Your task to perform on an android device: open the mobile data screen to see how much data has been used Image 0: 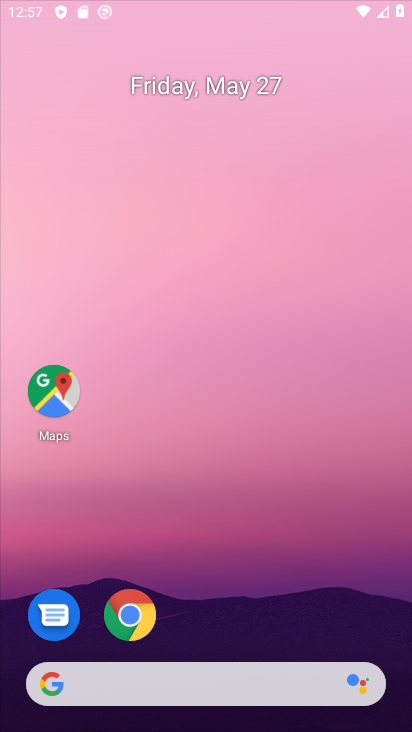
Step 0: press home button
Your task to perform on an android device: open the mobile data screen to see how much data has been used Image 1: 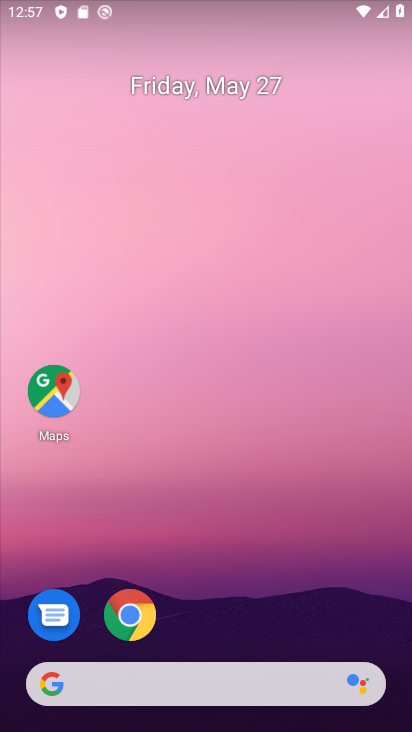
Step 1: drag from (216, 617) to (216, 25)
Your task to perform on an android device: open the mobile data screen to see how much data has been used Image 2: 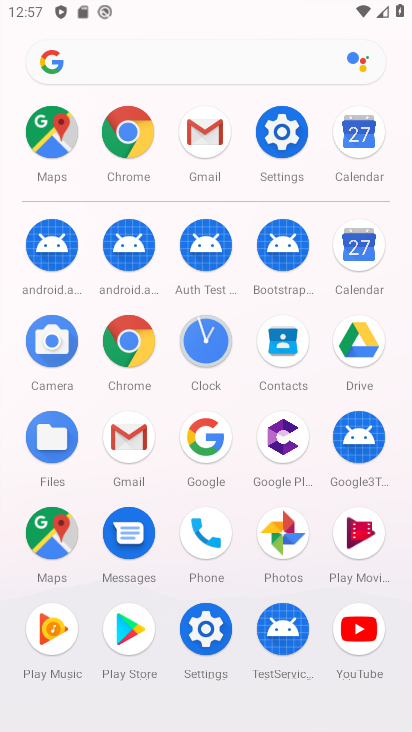
Step 2: click (291, 151)
Your task to perform on an android device: open the mobile data screen to see how much data has been used Image 3: 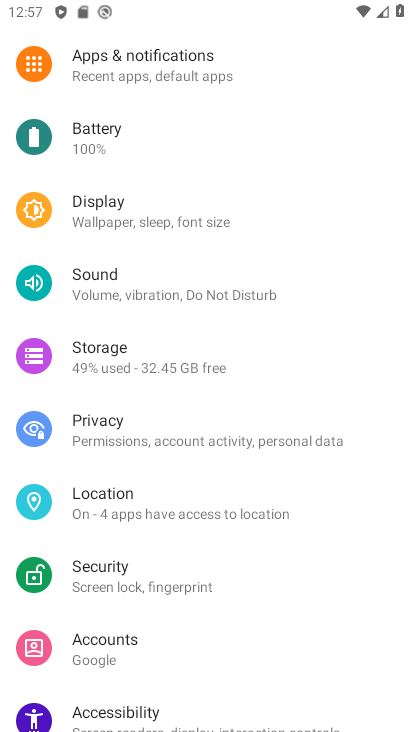
Step 3: drag from (226, 109) to (176, 526)
Your task to perform on an android device: open the mobile data screen to see how much data has been used Image 4: 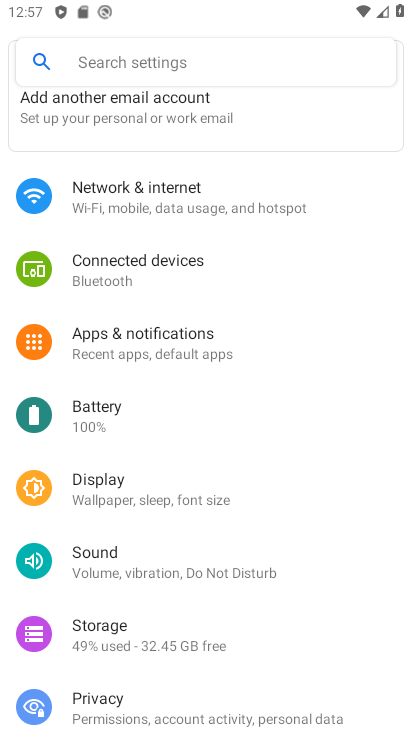
Step 4: click (153, 197)
Your task to perform on an android device: open the mobile data screen to see how much data has been used Image 5: 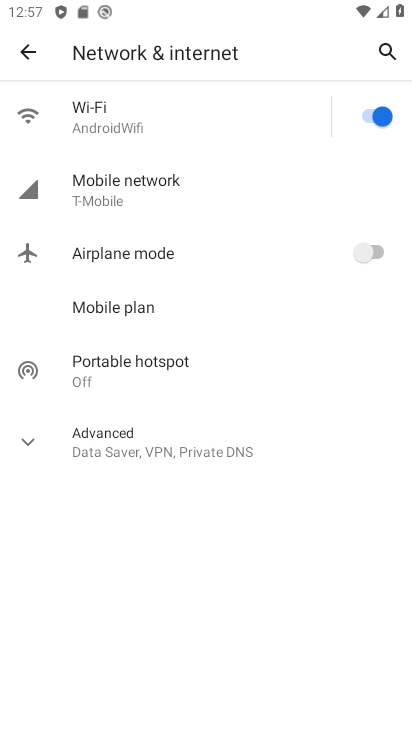
Step 5: click (142, 189)
Your task to perform on an android device: open the mobile data screen to see how much data has been used Image 6: 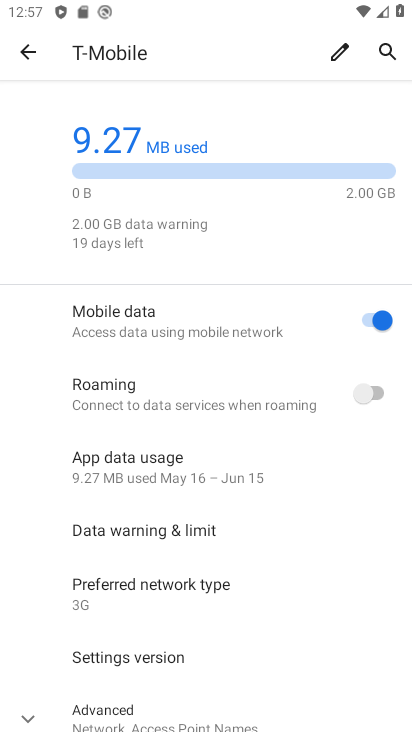
Step 6: click (131, 460)
Your task to perform on an android device: open the mobile data screen to see how much data has been used Image 7: 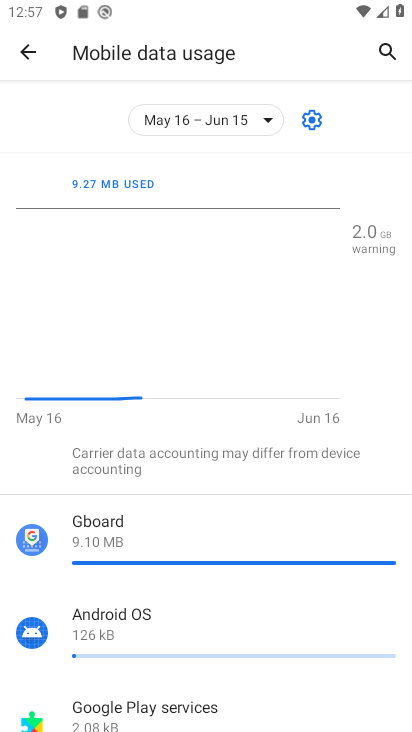
Step 7: task complete